Your task to perform on an android device: Open Wikipedia Image 0: 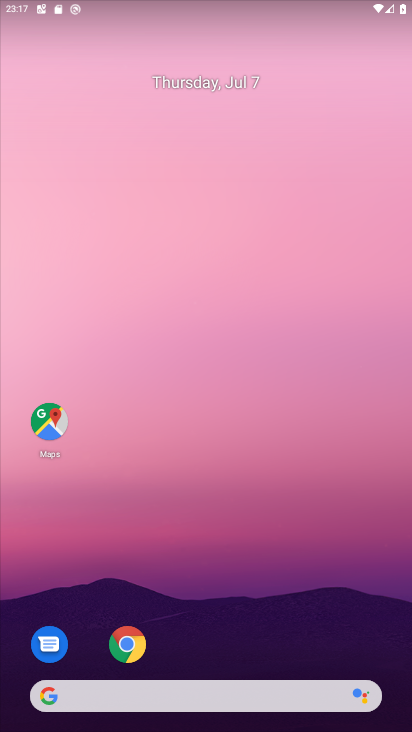
Step 0: click (128, 647)
Your task to perform on an android device: Open Wikipedia Image 1: 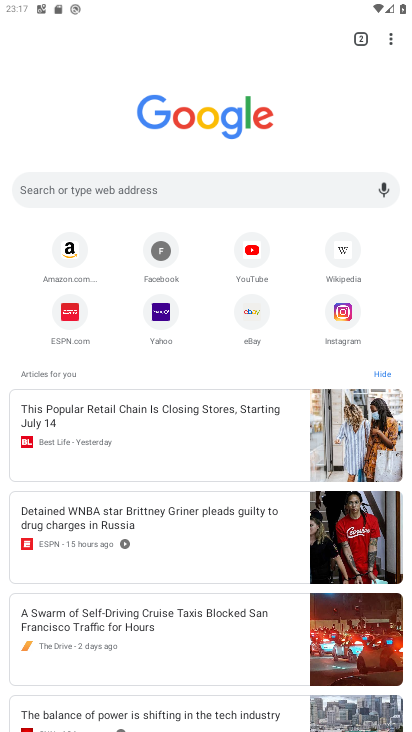
Step 1: click (347, 248)
Your task to perform on an android device: Open Wikipedia Image 2: 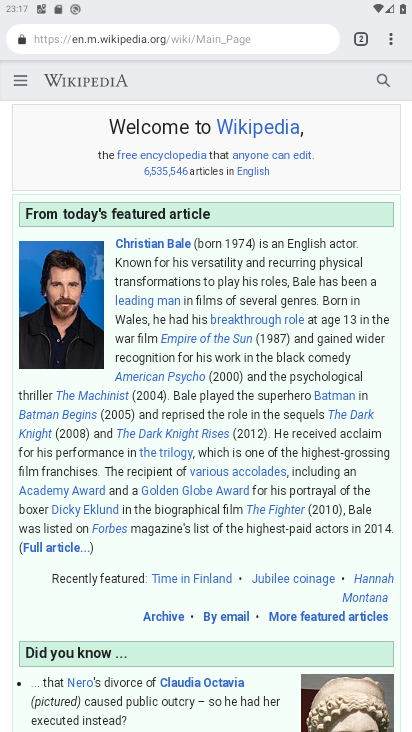
Step 2: task complete